Your task to perform on an android device: Open accessibility settings Image 0: 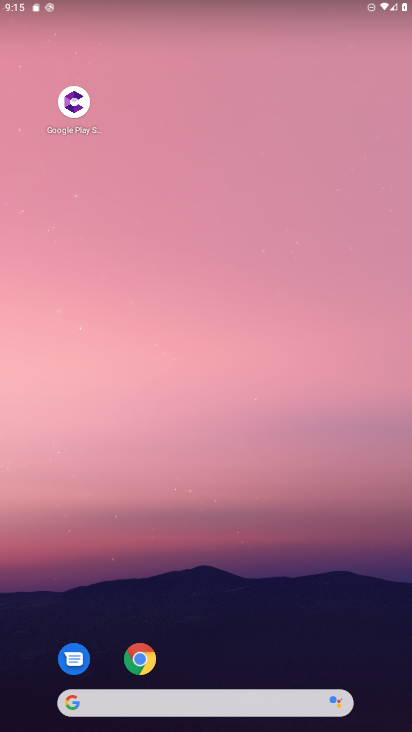
Step 0: drag from (299, 597) to (337, 15)
Your task to perform on an android device: Open accessibility settings Image 1: 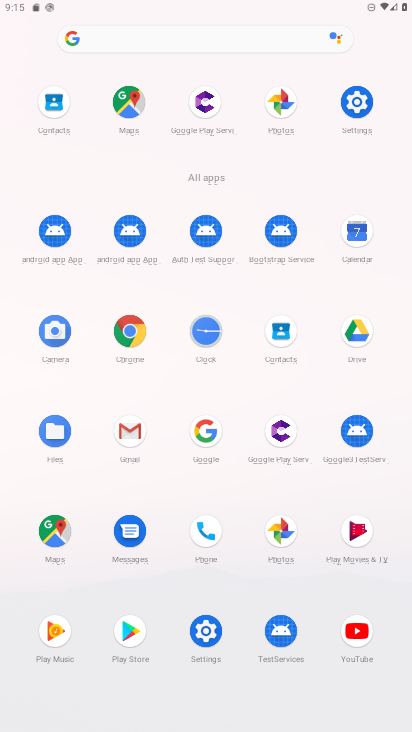
Step 1: click (351, 104)
Your task to perform on an android device: Open accessibility settings Image 2: 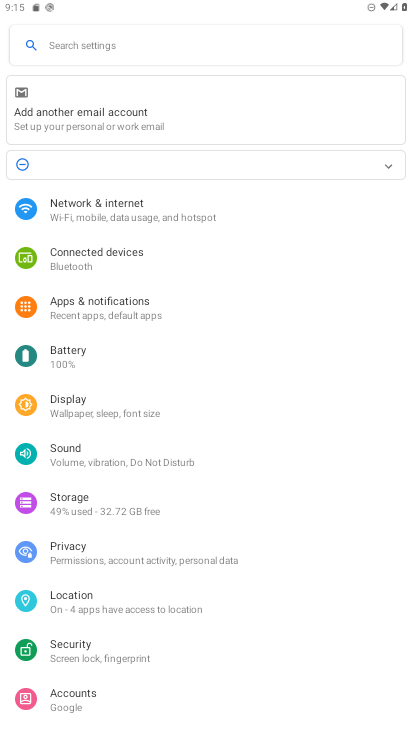
Step 2: drag from (240, 651) to (196, 194)
Your task to perform on an android device: Open accessibility settings Image 3: 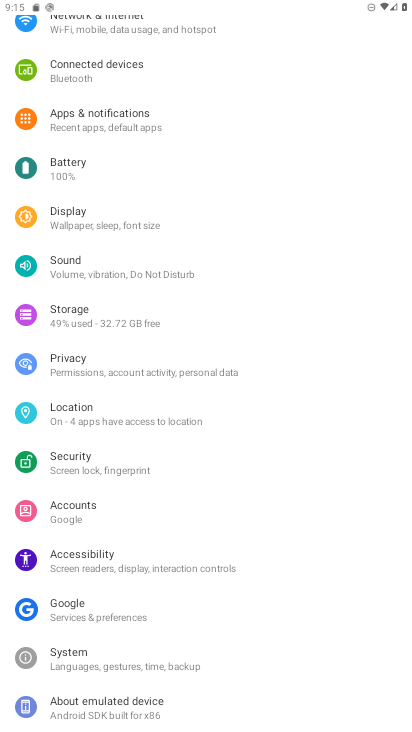
Step 3: click (135, 559)
Your task to perform on an android device: Open accessibility settings Image 4: 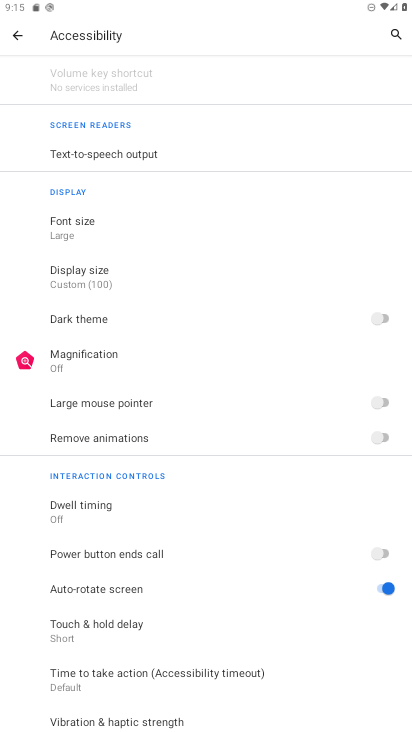
Step 4: task complete